Your task to perform on an android device: When is my next appointment? Image 0: 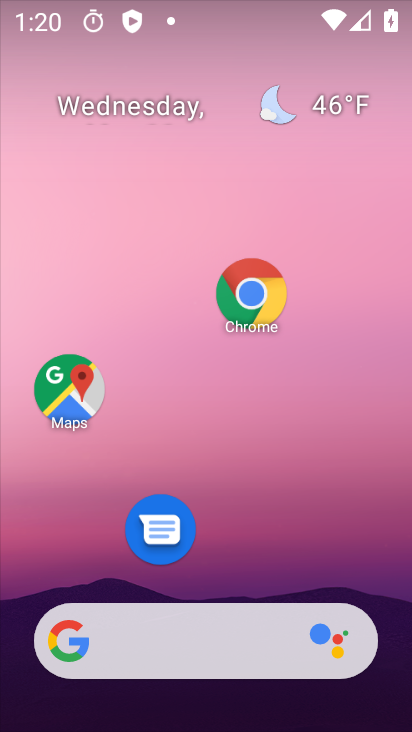
Step 0: click (100, 124)
Your task to perform on an android device: When is my next appointment? Image 1: 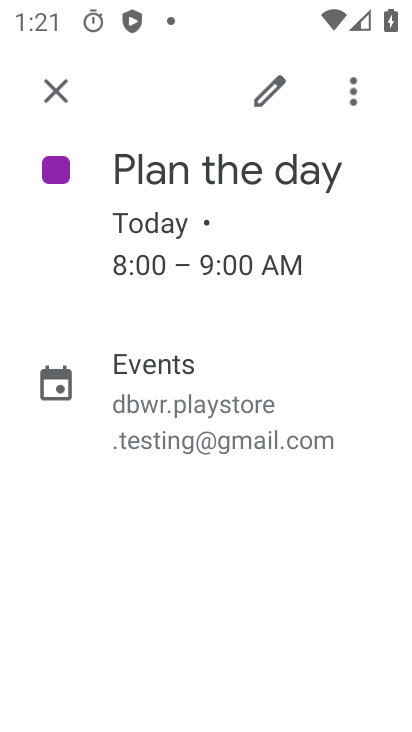
Step 1: task complete